Your task to perform on an android device: empty trash in google photos Image 0: 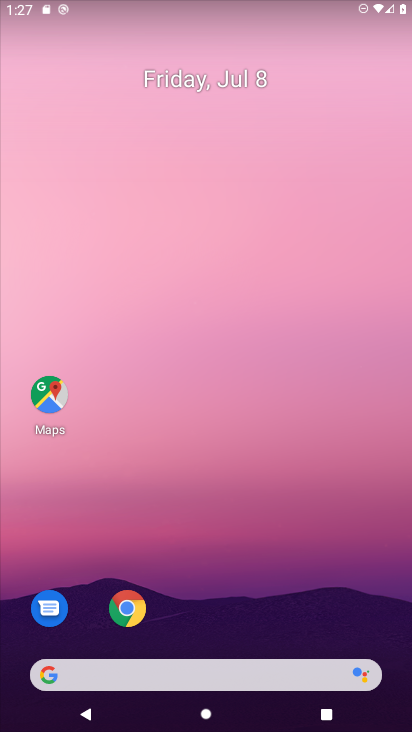
Step 0: drag from (269, 629) to (140, 39)
Your task to perform on an android device: empty trash in google photos Image 1: 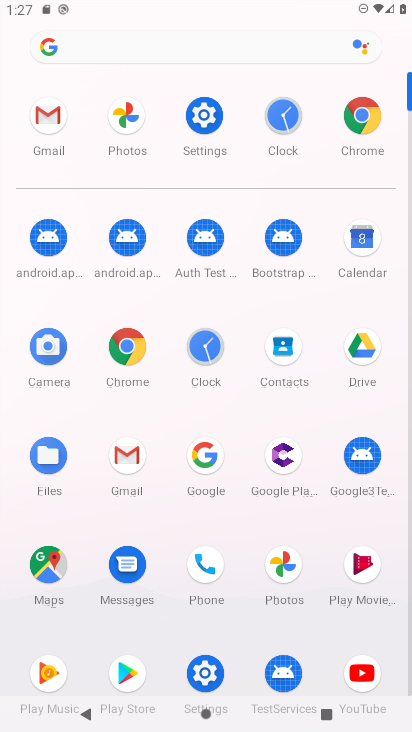
Step 1: click (116, 120)
Your task to perform on an android device: empty trash in google photos Image 2: 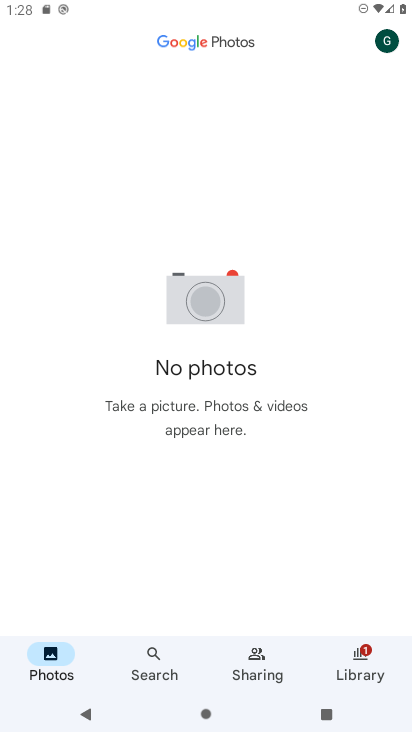
Step 2: click (353, 659)
Your task to perform on an android device: empty trash in google photos Image 3: 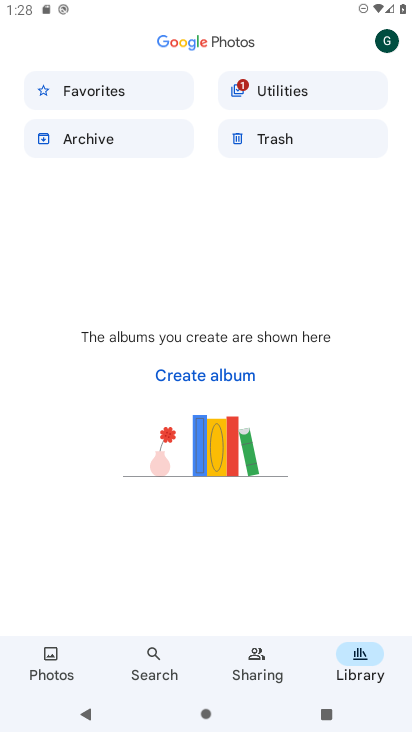
Step 3: click (265, 143)
Your task to perform on an android device: empty trash in google photos Image 4: 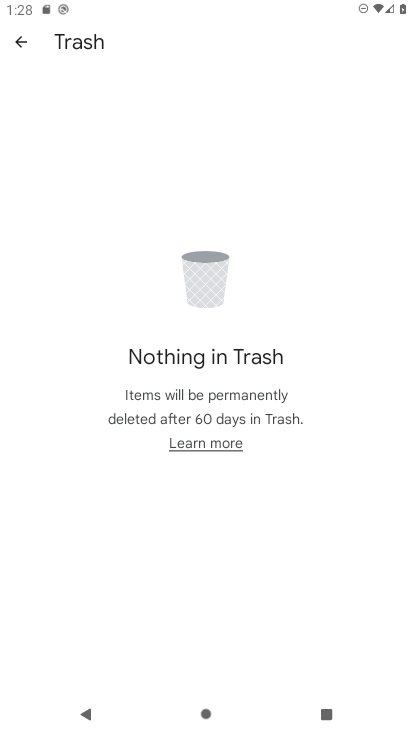
Step 4: task complete